Your task to perform on an android device: Go to calendar. Show me events next week Image 0: 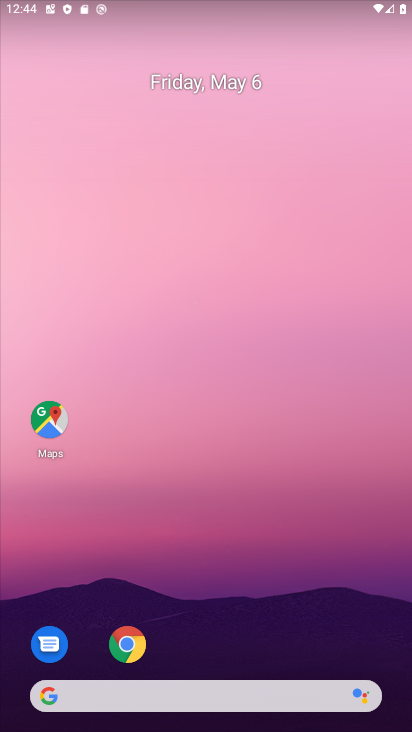
Step 0: drag from (309, 636) to (238, 140)
Your task to perform on an android device: Go to calendar. Show me events next week Image 1: 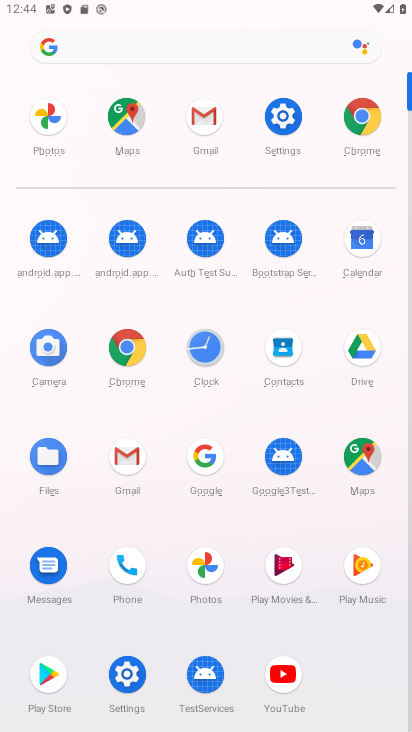
Step 1: click (367, 257)
Your task to perform on an android device: Go to calendar. Show me events next week Image 2: 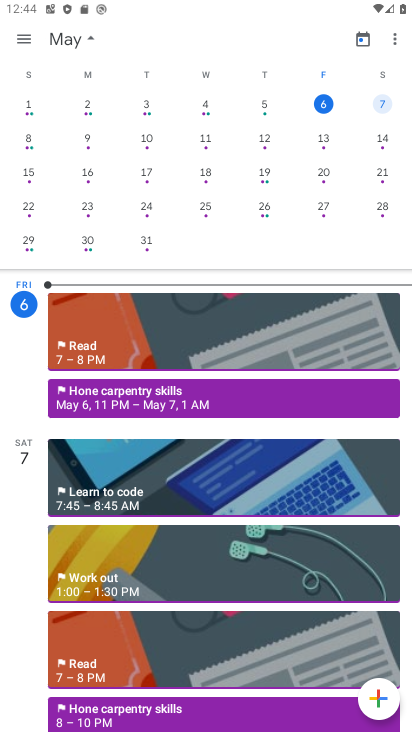
Step 2: click (260, 142)
Your task to perform on an android device: Go to calendar. Show me events next week Image 3: 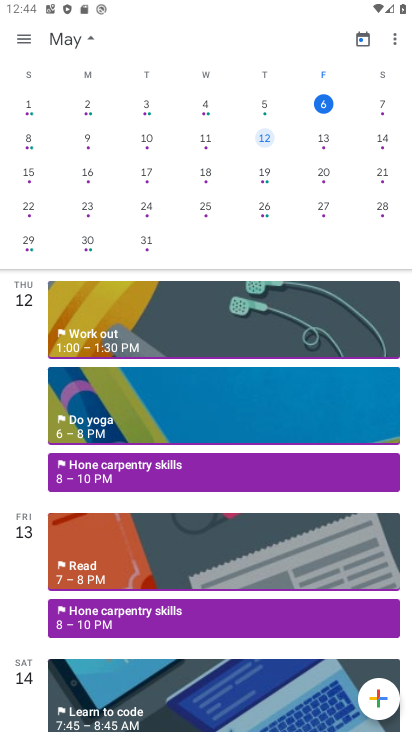
Step 3: click (21, 37)
Your task to perform on an android device: Go to calendar. Show me events next week Image 4: 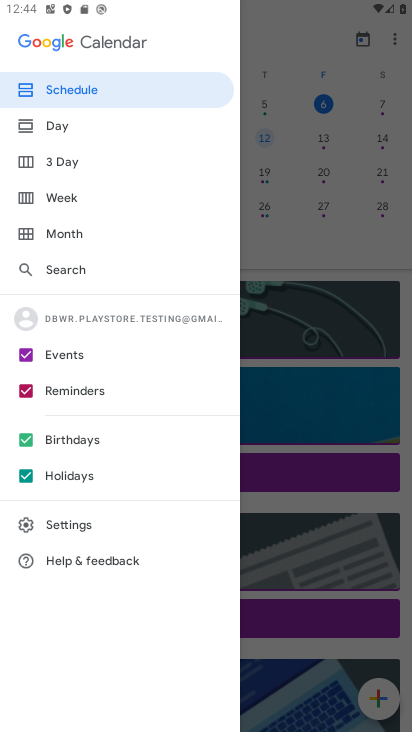
Step 4: click (73, 196)
Your task to perform on an android device: Go to calendar. Show me events next week Image 5: 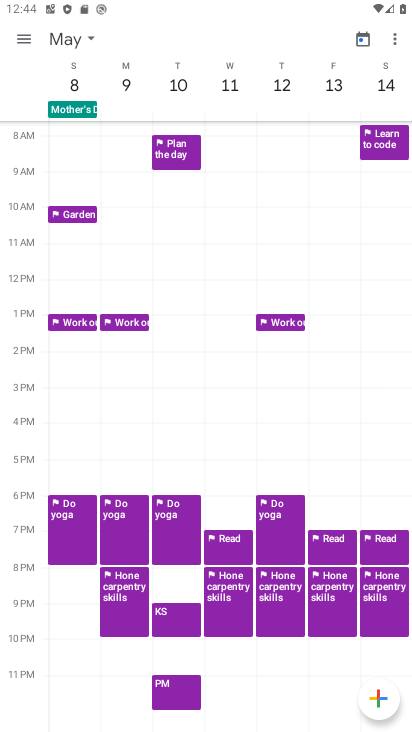
Step 5: task complete